Your task to perform on an android device: star an email in the gmail app Image 0: 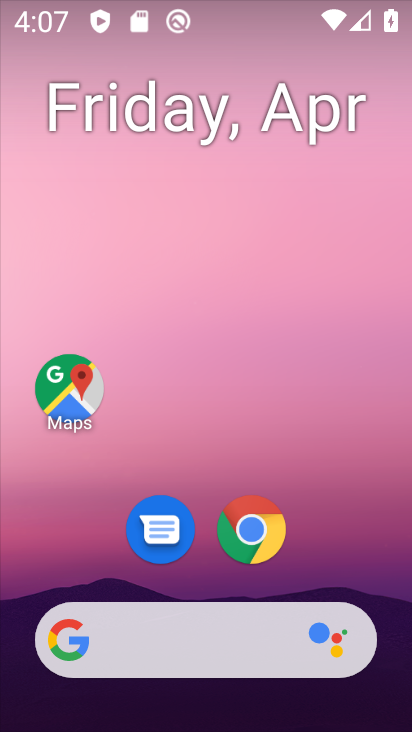
Step 0: drag from (215, 259) to (215, 84)
Your task to perform on an android device: star an email in the gmail app Image 1: 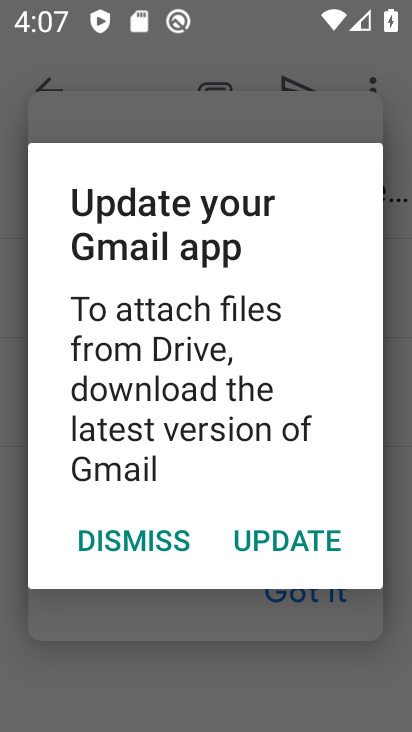
Step 1: press home button
Your task to perform on an android device: star an email in the gmail app Image 2: 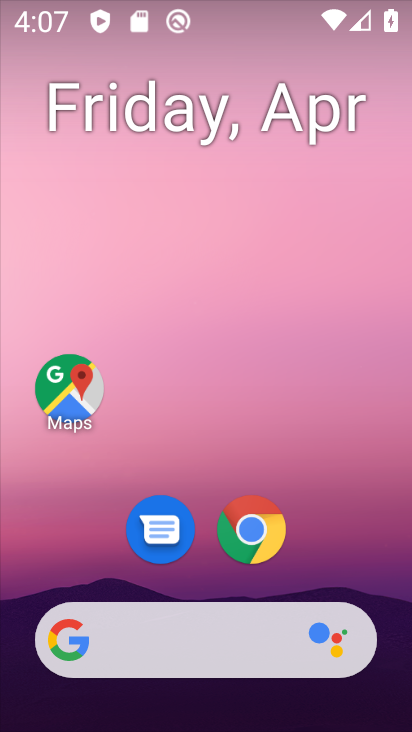
Step 2: drag from (196, 571) to (215, 113)
Your task to perform on an android device: star an email in the gmail app Image 3: 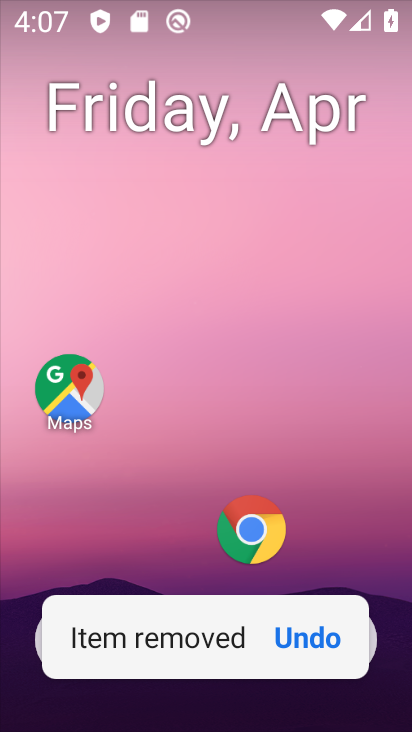
Step 3: click (316, 638)
Your task to perform on an android device: star an email in the gmail app Image 4: 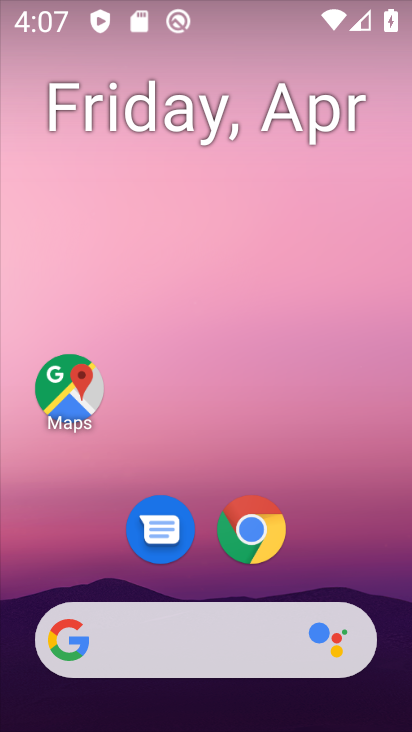
Step 4: drag from (321, 577) to (328, 31)
Your task to perform on an android device: star an email in the gmail app Image 5: 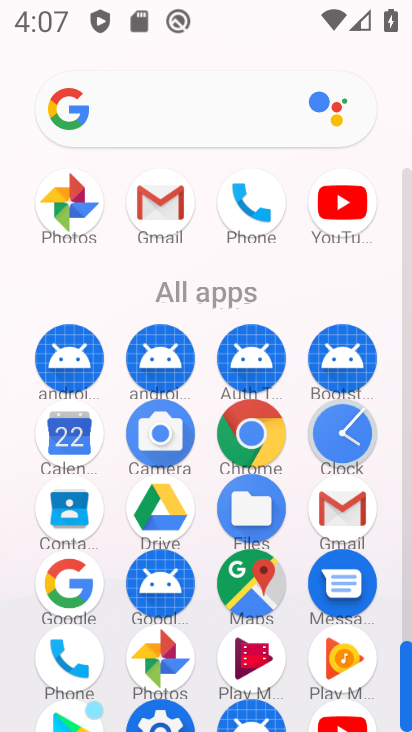
Step 5: click (342, 501)
Your task to perform on an android device: star an email in the gmail app Image 6: 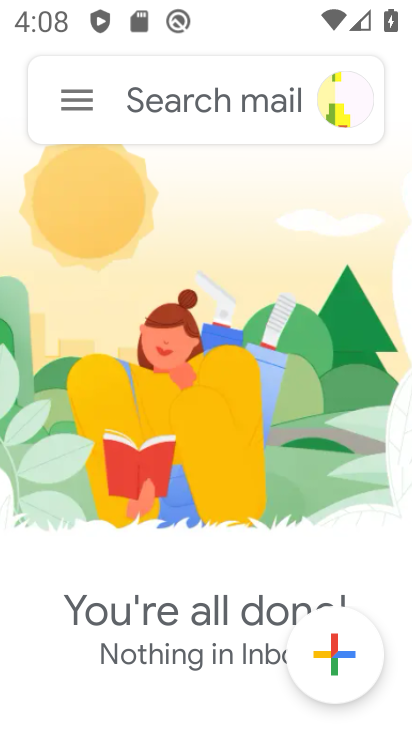
Step 6: click (76, 90)
Your task to perform on an android device: star an email in the gmail app Image 7: 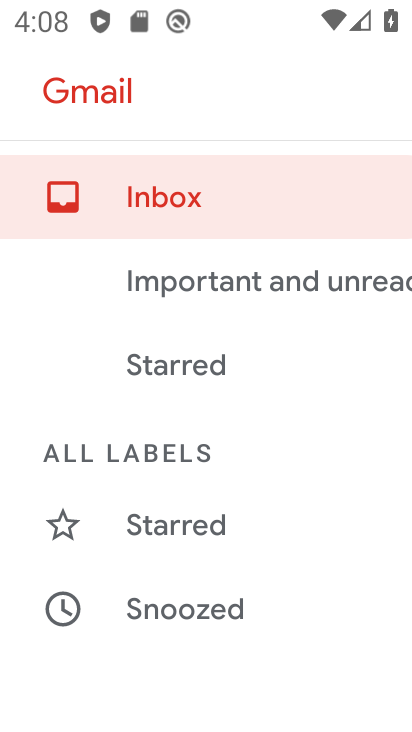
Step 7: drag from (257, 627) to (282, 249)
Your task to perform on an android device: star an email in the gmail app Image 8: 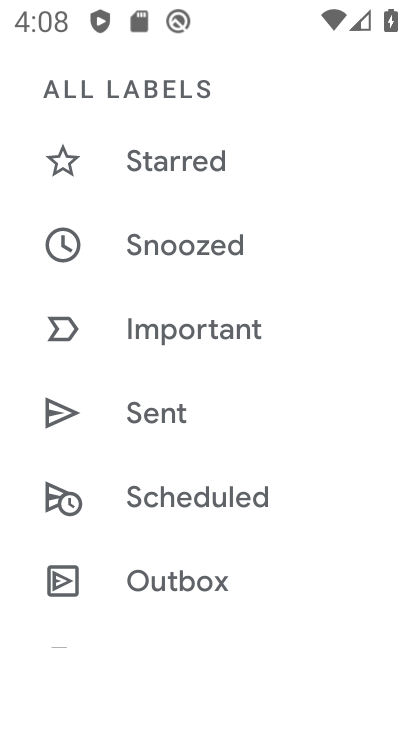
Step 8: drag from (231, 574) to (243, 252)
Your task to perform on an android device: star an email in the gmail app Image 9: 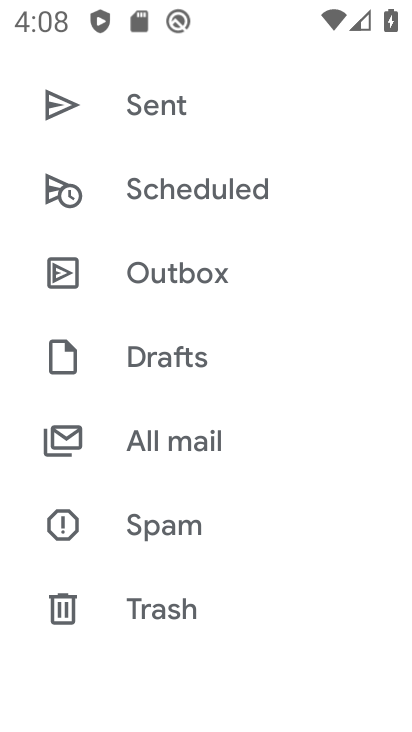
Step 9: click (228, 443)
Your task to perform on an android device: star an email in the gmail app Image 10: 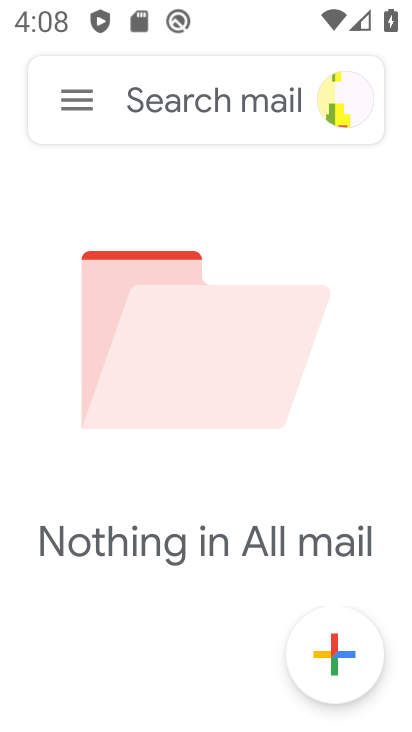
Step 10: task complete